Your task to perform on an android device: set the timer Image 0: 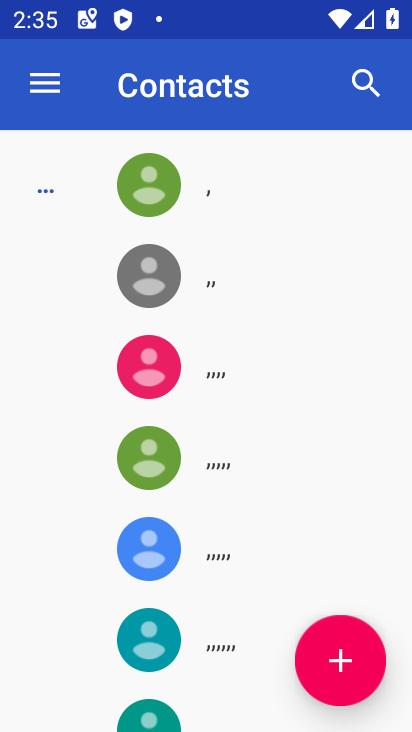
Step 0: press home button
Your task to perform on an android device: set the timer Image 1: 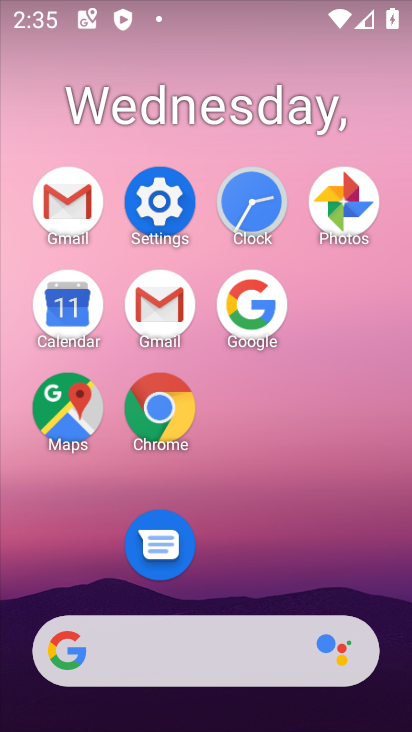
Step 1: click (266, 198)
Your task to perform on an android device: set the timer Image 2: 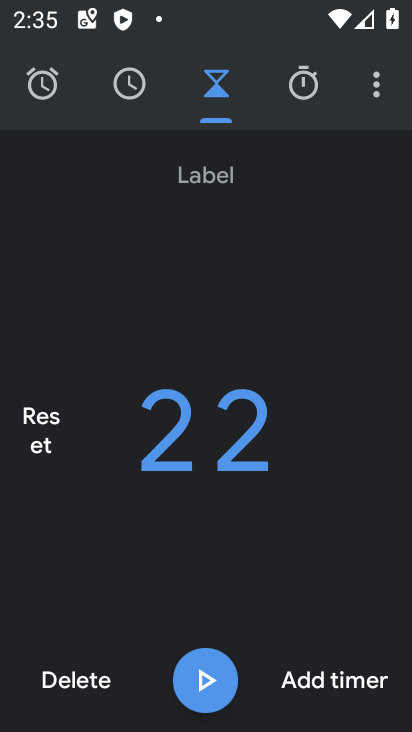
Step 2: click (298, 94)
Your task to perform on an android device: set the timer Image 3: 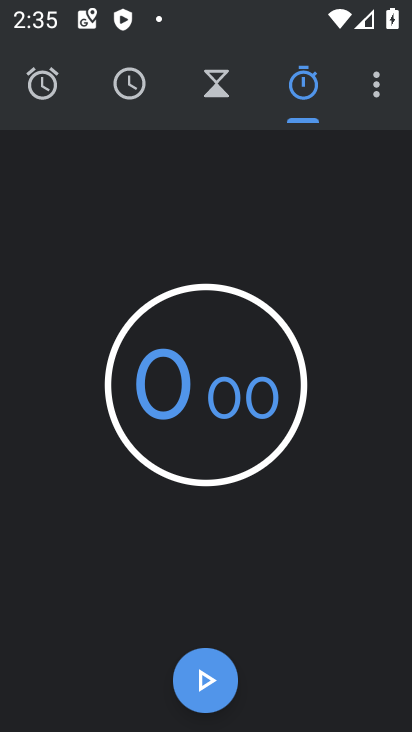
Step 3: click (220, 65)
Your task to perform on an android device: set the timer Image 4: 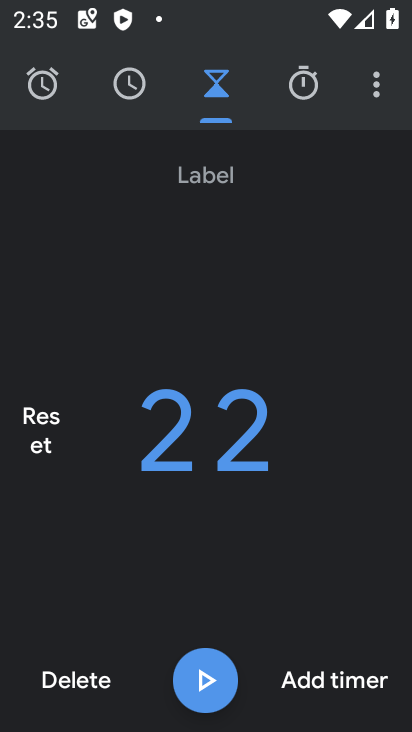
Step 4: click (61, 693)
Your task to perform on an android device: set the timer Image 5: 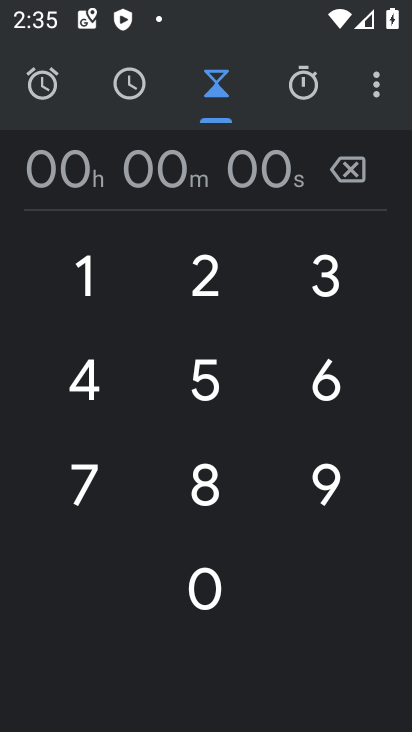
Step 5: click (217, 270)
Your task to perform on an android device: set the timer Image 6: 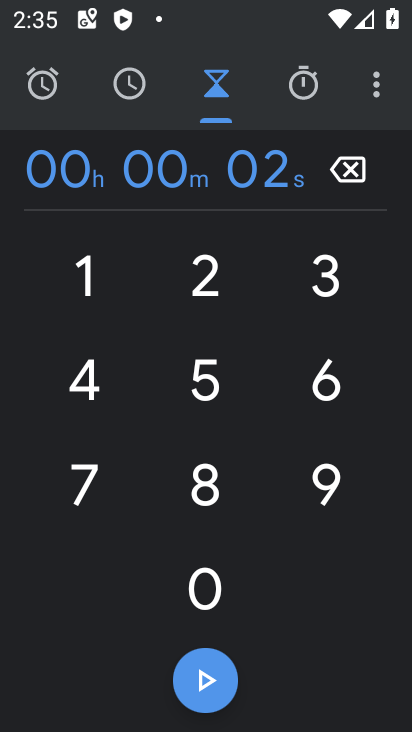
Step 6: click (217, 270)
Your task to perform on an android device: set the timer Image 7: 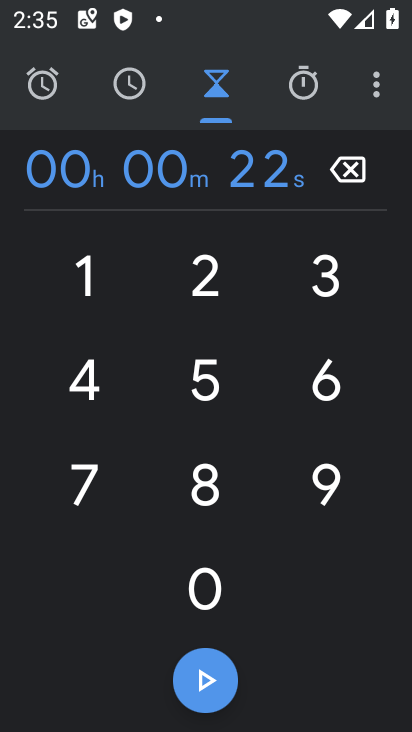
Step 7: click (198, 687)
Your task to perform on an android device: set the timer Image 8: 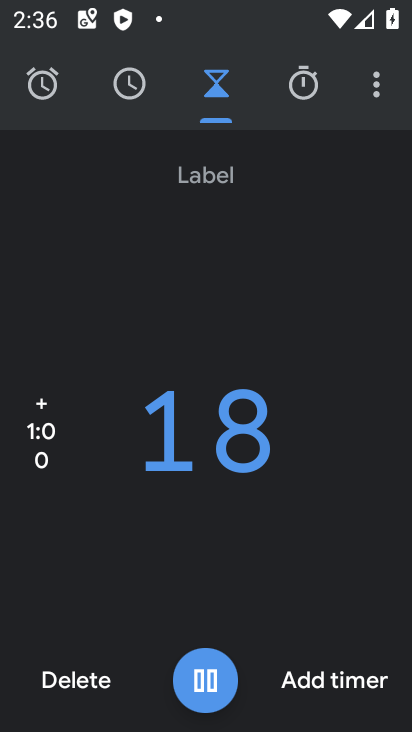
Step 8: task complete